Your task to perform on an android device: Open Amazon Image 0: 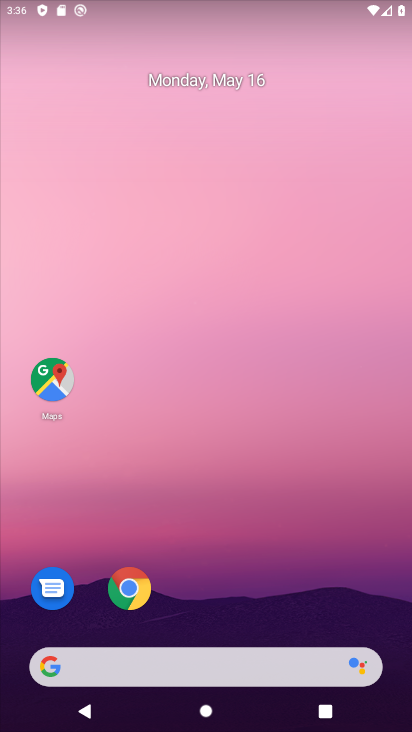
Step 0: click (140, 609)
Your task to perform on an android device: Open Amazon Image 1: 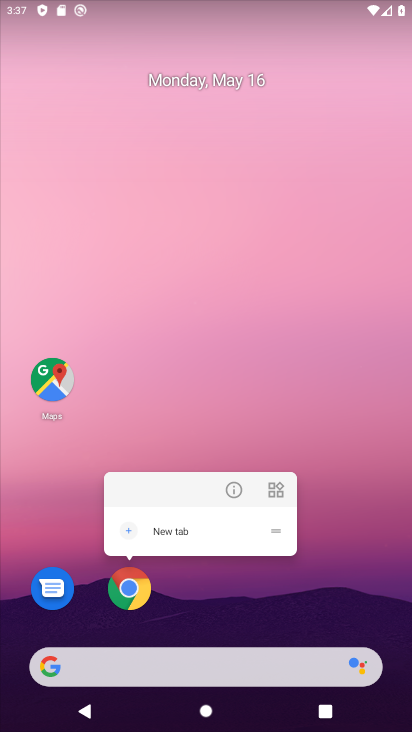
Step 1: click (136, 594)
Your task to perform on an android device: Open Amazon Image 2: 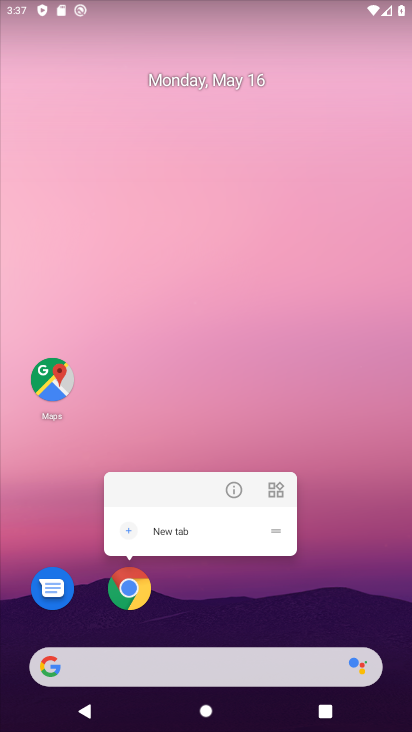
Step 2: click (121, 599)
Your task to perform on an android device: Open Amazon Image 3: 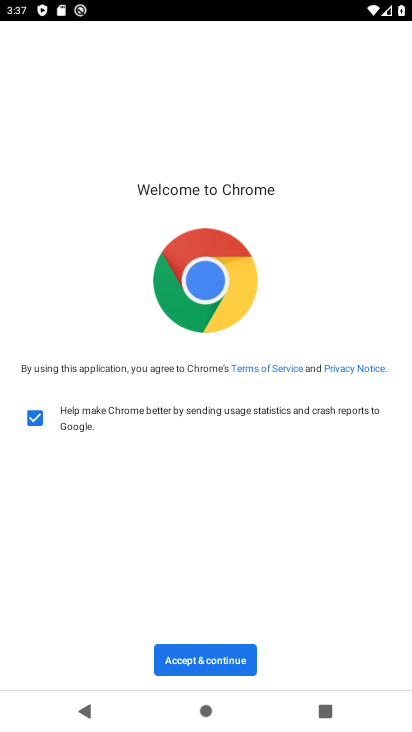
Step 3: click (188, 666)
Your task to perform on an android device: Open Amazon Image 4: 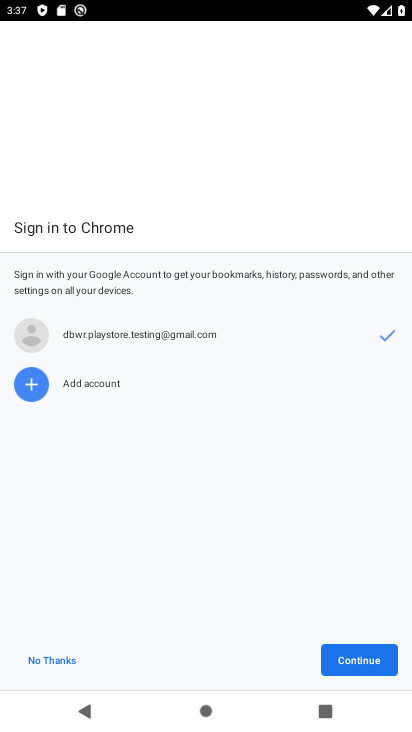
Step 4: click (357, 660)
Your task to perform on an android device: Open Amazon Image 5: 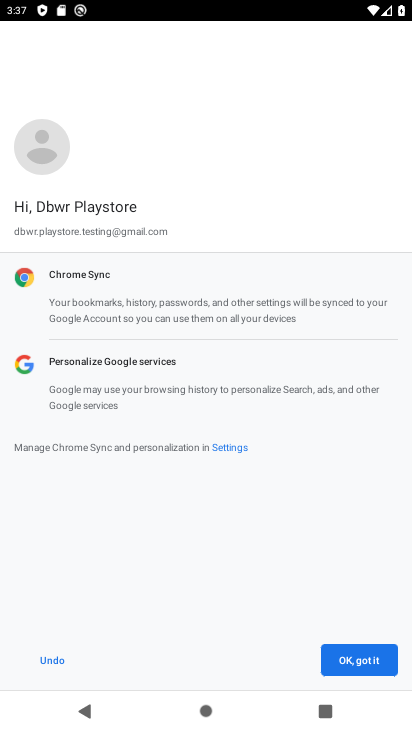
Step 5: click (357, 660)
Your task to perform on an android device: Open Amazon Image 6: 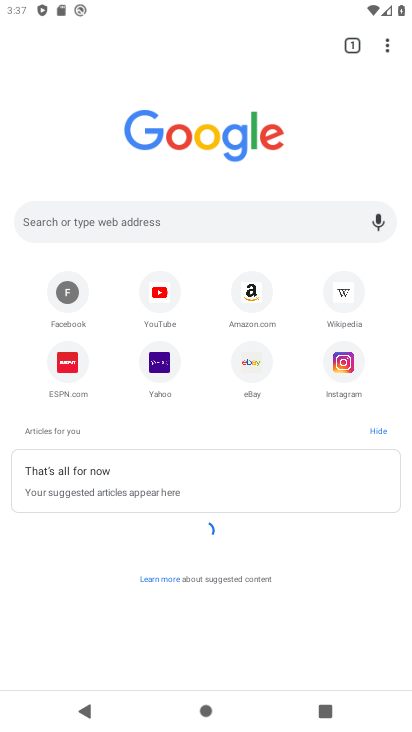
Step 6: click (259, 305)
Your task to perform on an android device: Open Amazon Image 7: 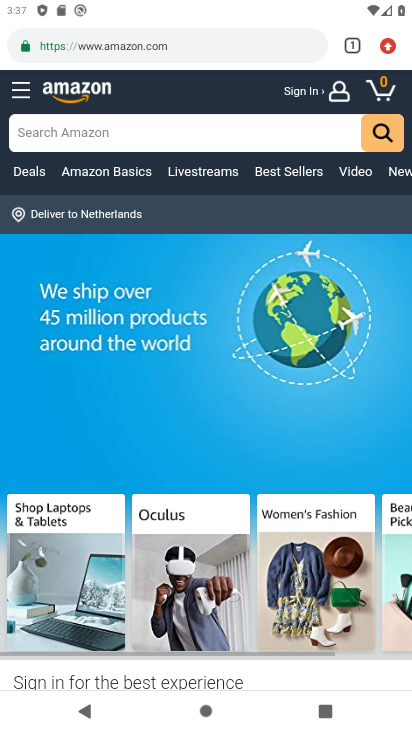
Step 7: task complete